Your task to perform on an android device: check data usage Image 0: 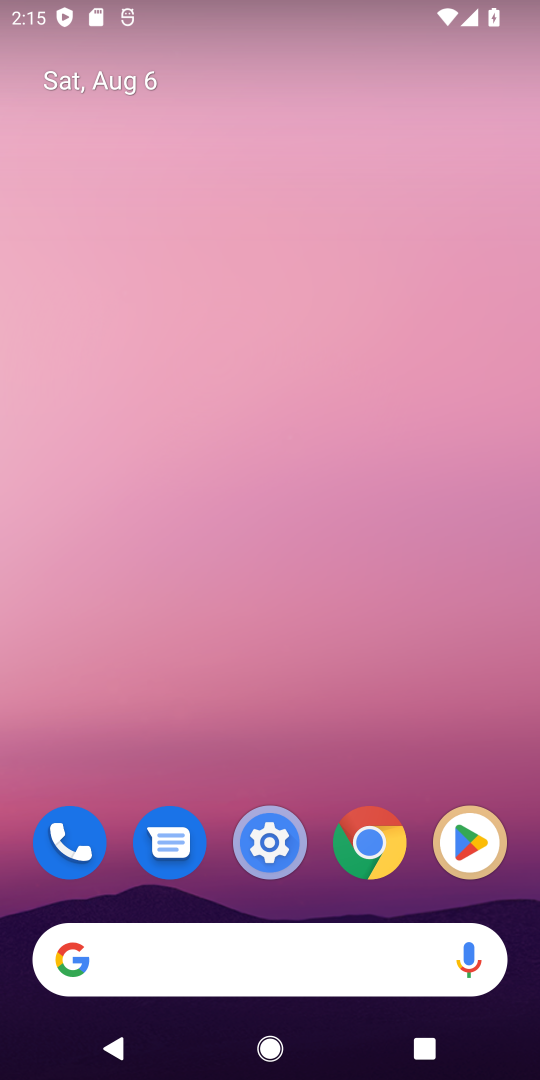
Step 0: drag from (256, 796) to (213, 50)
Your task to perform on an android device: check data usage Image 1: 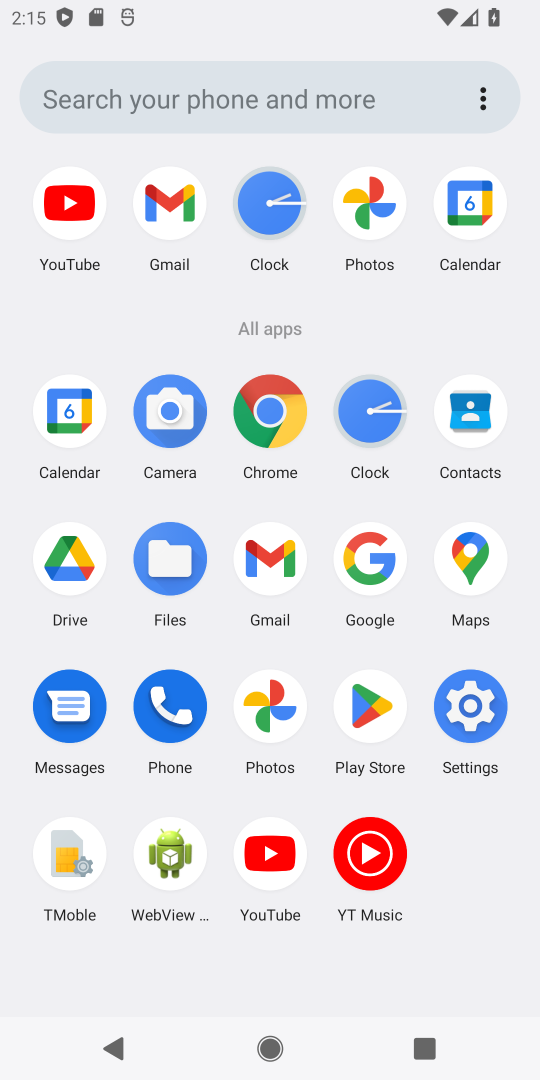
Step 1: click (470, 746)
Your task to perform on an android device: check data usage Image 2: 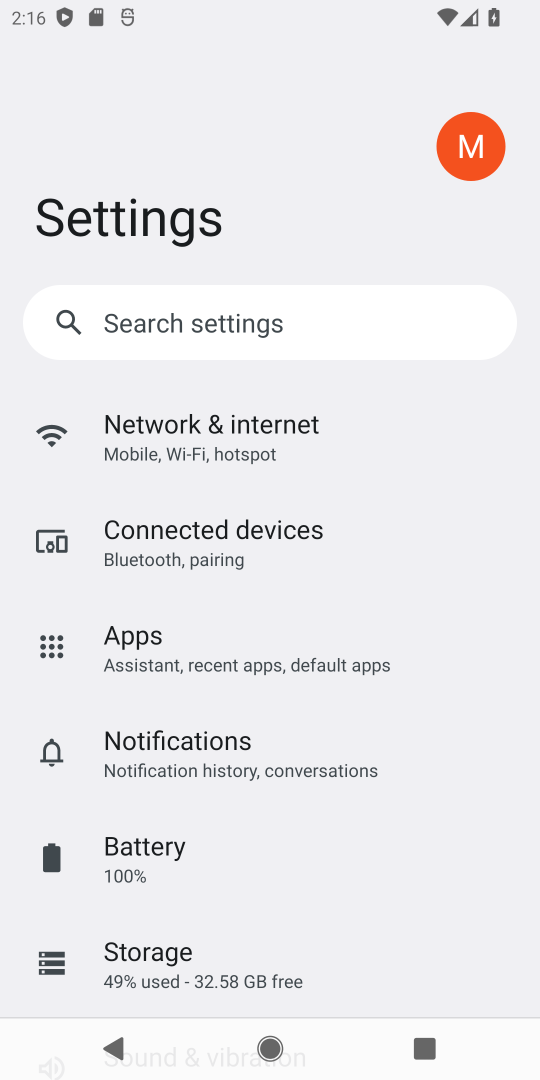
Step 2: click (169, 453)
Your task to perform on an android device: check data usage Image 3: 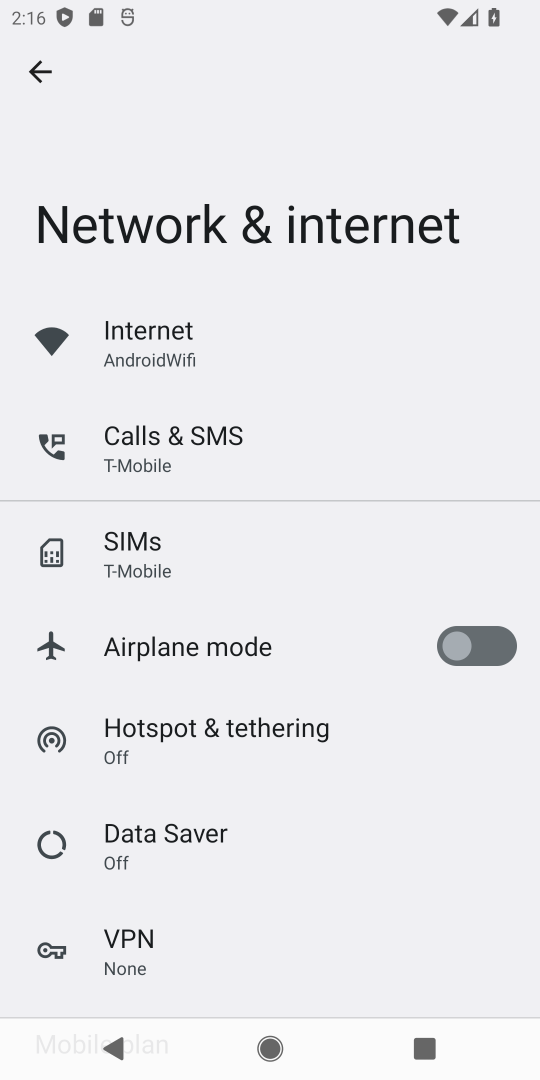
Step 3: click (182, 346)
Your task to perform on an android device: check data usage Image 4: 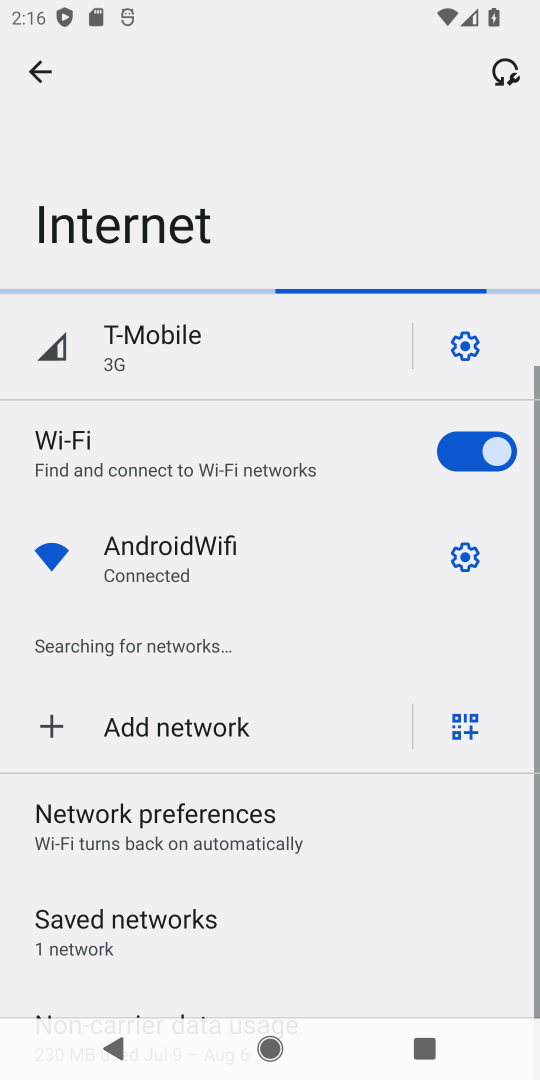
Step 4: click (163, 357)
Your task to perform on an android device: check data usage Image 5: 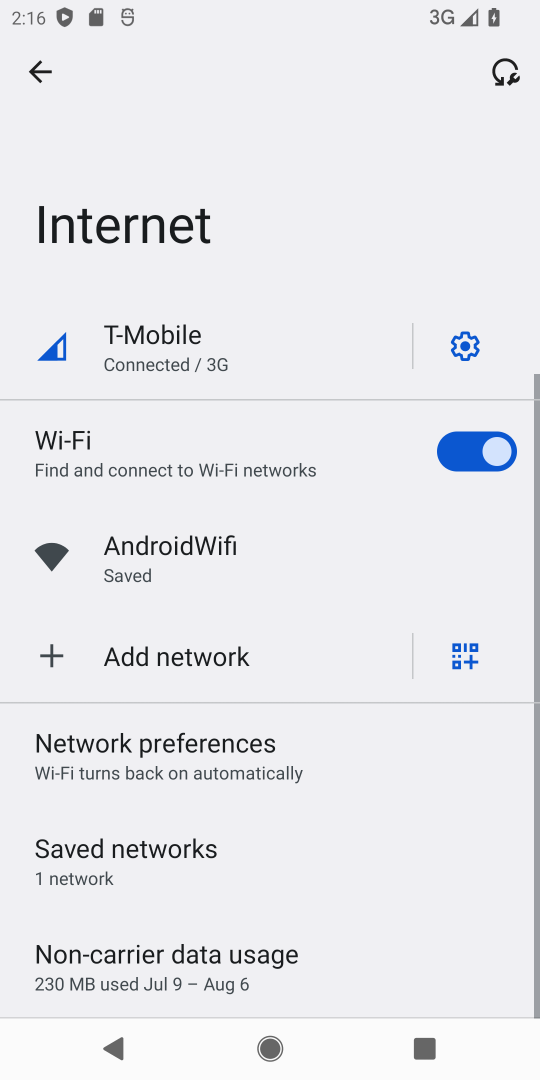
Step 5: click (45, 84)
Your task to perform on an android device: check data usage Image 6: 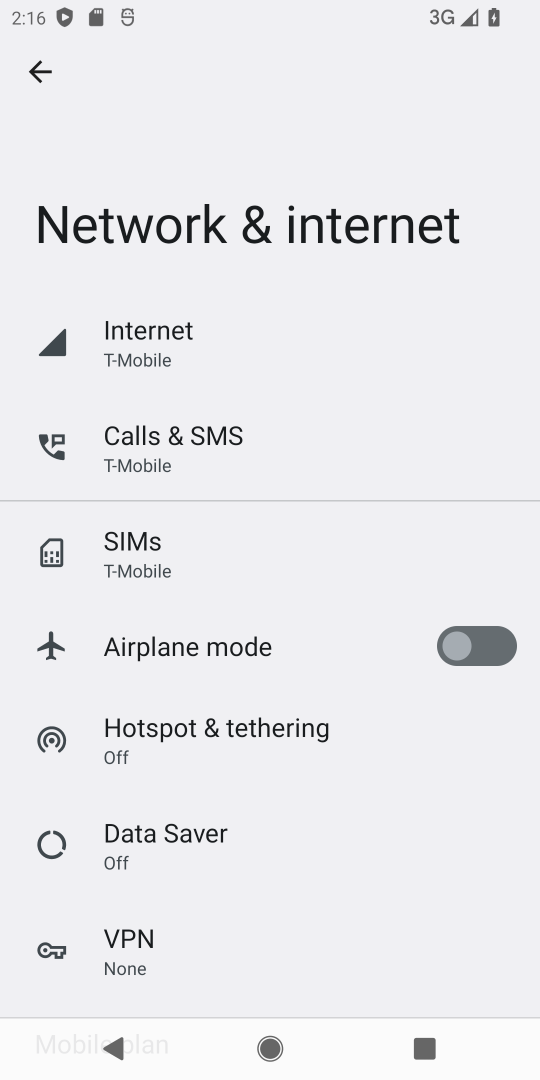
Step 6: task complete